Your task to perform on an android device: Go to Yahoo.com Image 0: 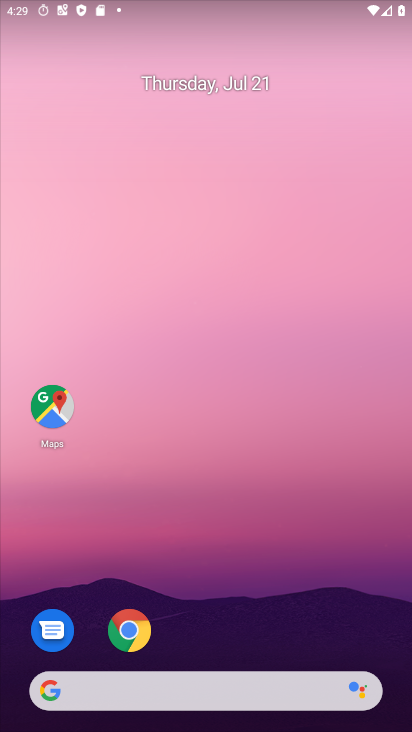
Step 0: click (129, 632)
Your task to perform on an android device: Go to Yahoo.com Image 1: 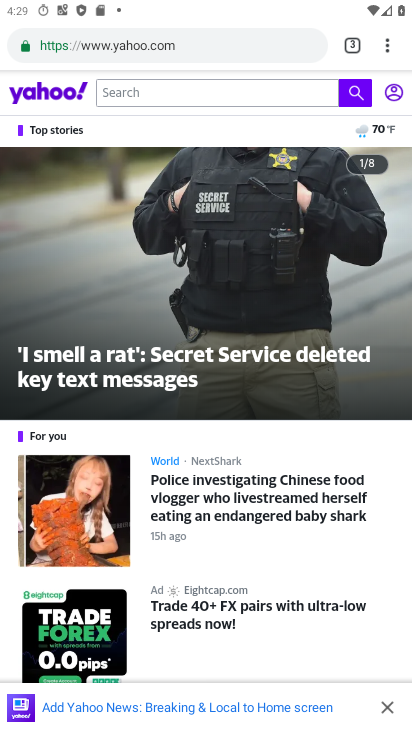
Step 1: task complete